Your task to perform on an android device: Open Youtube and go to "Your channel" Image 0: 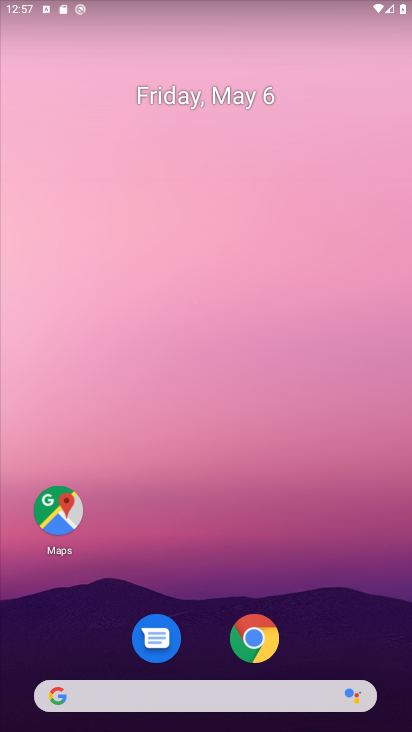
Step 0: drag from (265, 698) to (276, 8)
Your task to perform on an android device: Open Youtube and go to "Your channel" Image 1: 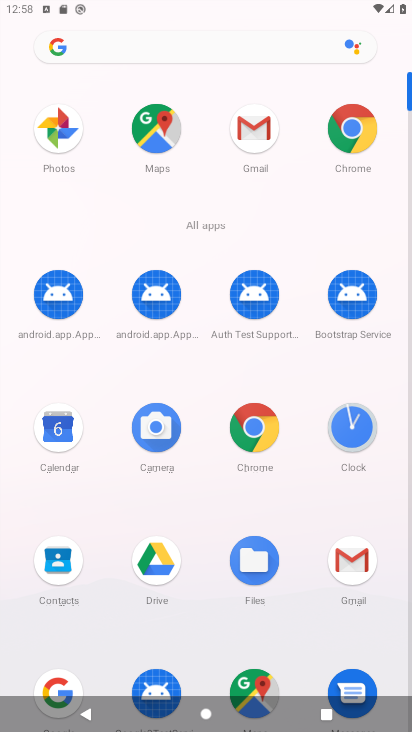
Step 1: drag from (297, 639) to (312, 94)
Your task to perform on an android device: Open Youtube and go to "Your channel" Image 2: 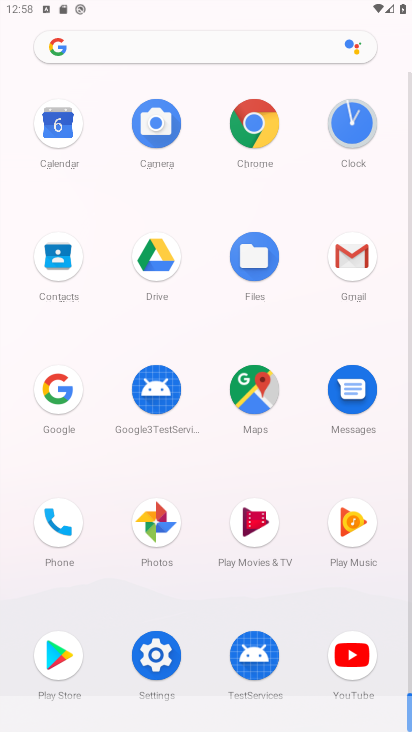
Step 2: click (354, 670)
Your task to perform on an android device: Open Youtube and go to "Your channel" Image 3: 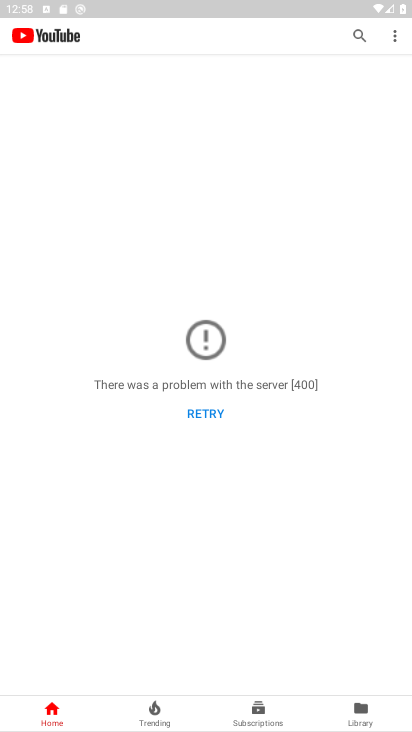
Step 3: click (217, 416)
Your task to perform on an android device: Open Youtube and go to "Your channel" Image 4: 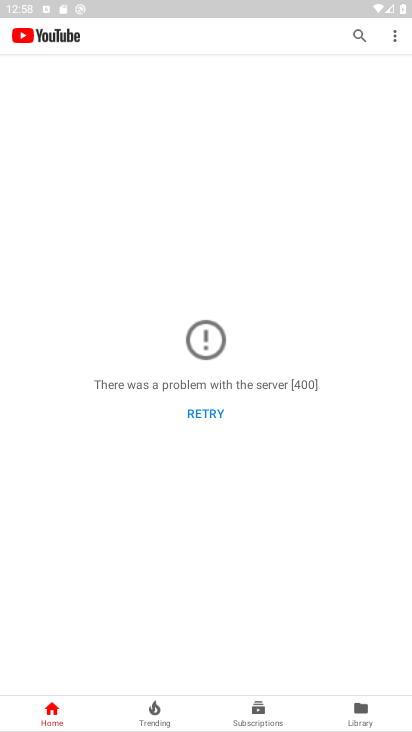
Step 4: task complete